Your task to perform on an android device: Open display settings Image 0: 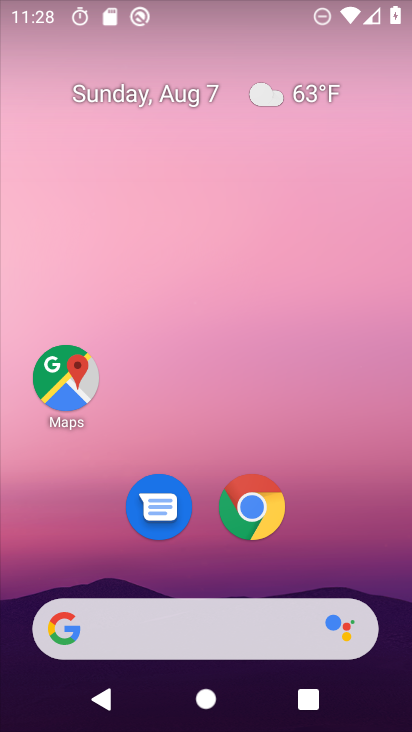
Step 0: drag from (351, 543) to (320, 96)
Your task to perform on an android device: Open display settings Image 1: 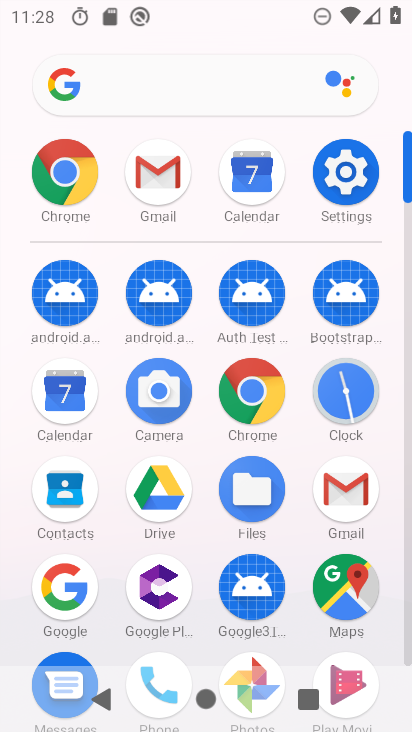
Step 1: click (344, 175)
Your task to perform on an android device: Open display settings Image 2: 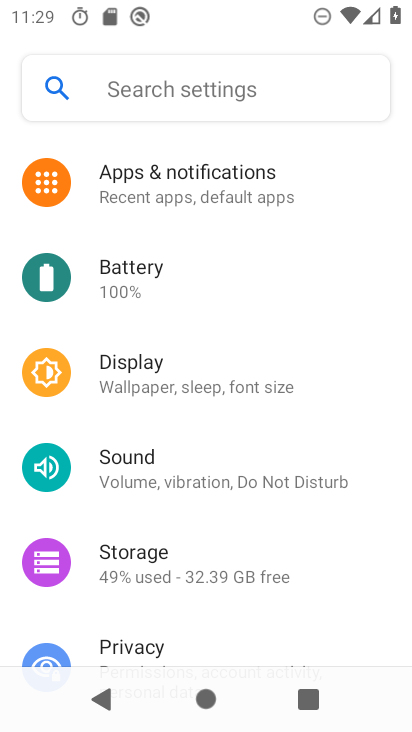
Step 2: click (165, 377)
Your task to perform on an android device: Open display settings Image 3: 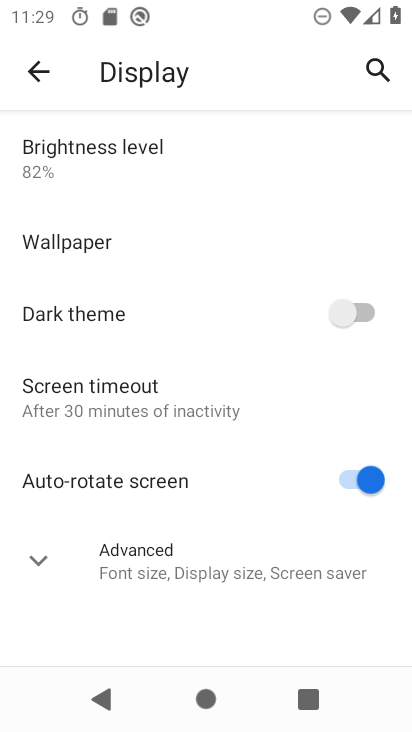
Step 3: task complete